Your task to perform on an android device: turn off smart reply in the gmail app Image 0: 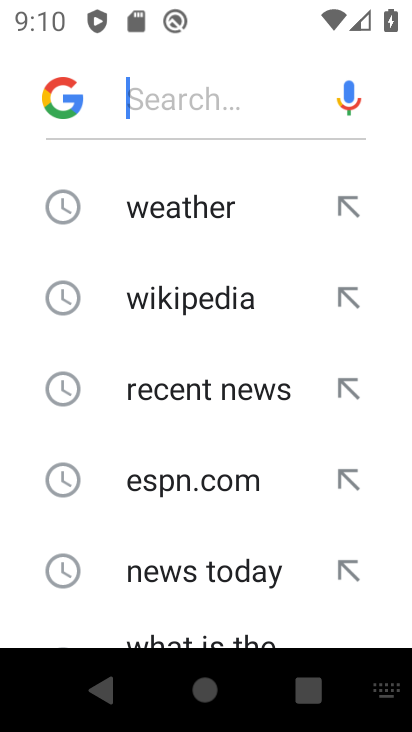
Step 0: press back button
Your task to perform on an android device: turn off smart reply in the gmail app Image 1: 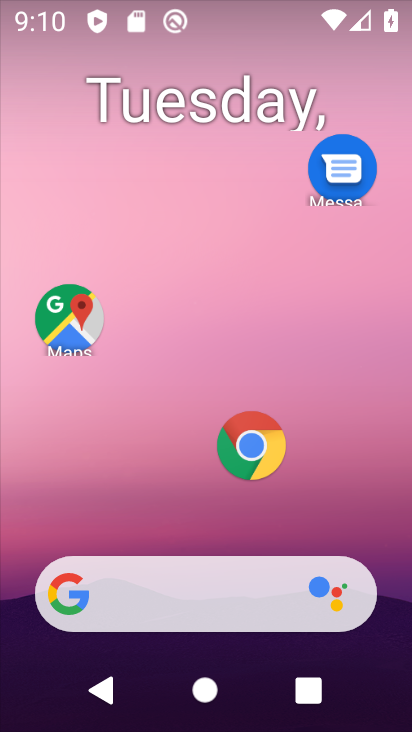
Step 1: drag from (108, 463) to (220, 250)
Your task to perform on an android device: turn off smart reply in the gmail app Image 2: 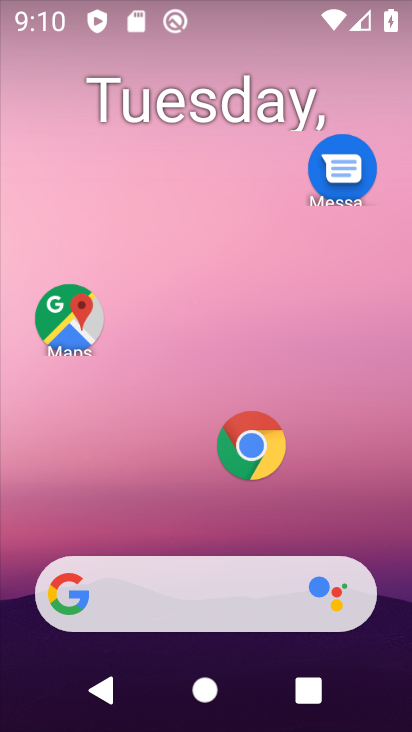
Step 2: drag from (31, 562) to (252, 180)
Your task to perform on an android device: turn off smart reply in the gmail app Image 3: 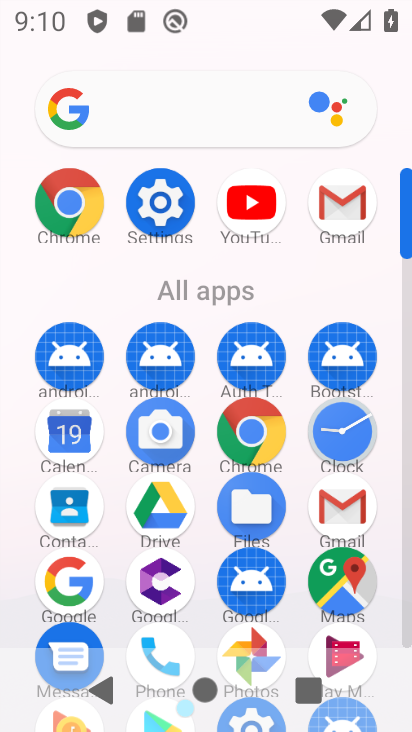
Step 3: click (334, 204)
Your task to perform on an android device: turn off smart reply in the gmail app Image 4: 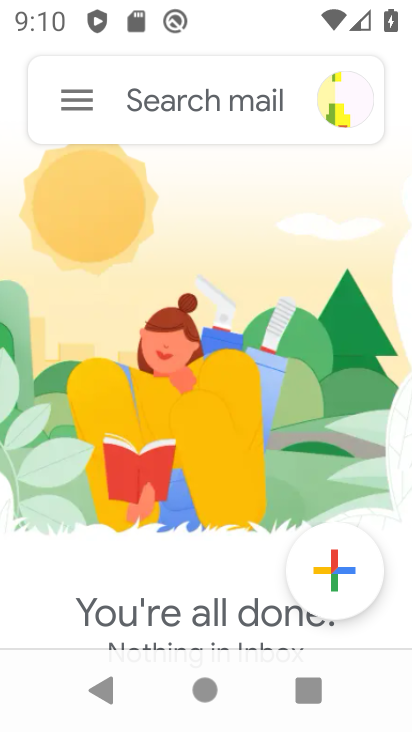
Step 4: click (65, 109)
Your task to perform on an android device: turn off smart reply in the gmail app Image 5: 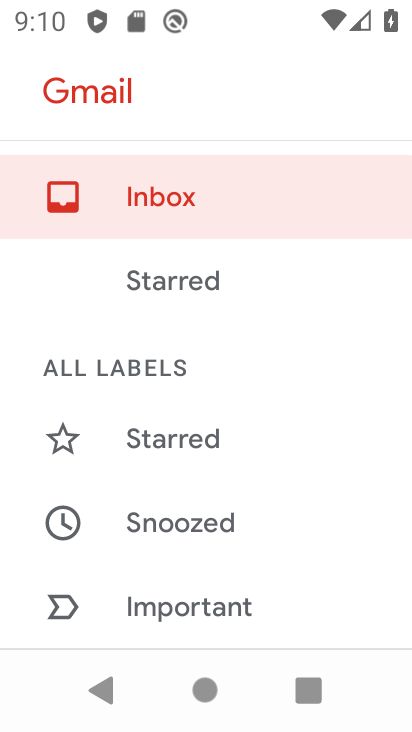
Step 5: drag from (126, 627) to (313, 274)
Your task to perform on an android device: turn off smart reply in the gmail app Image 6: 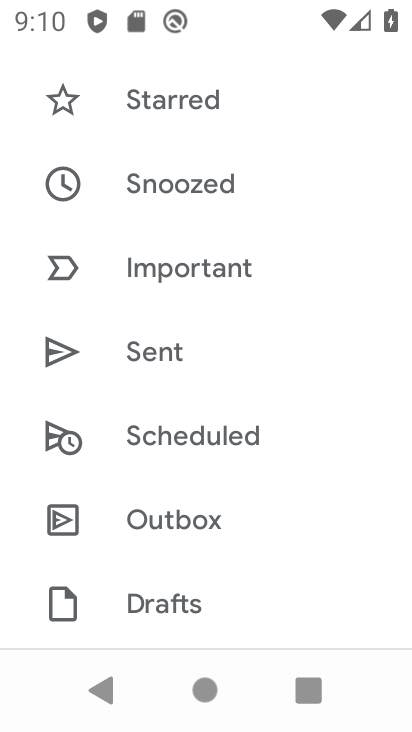
Step 6: drag from (162, 551) to (366, 224)
Your task to perform on an android device: turn off smart reply in the gmail app Image 7: 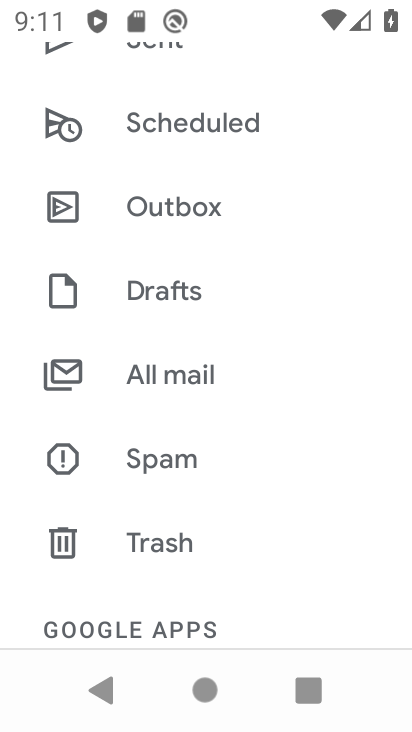
Step 7: drag from (39, 568) to (254, 335)
Your task to perform on an android device: turn off smart reply in the gmail app Image 8: 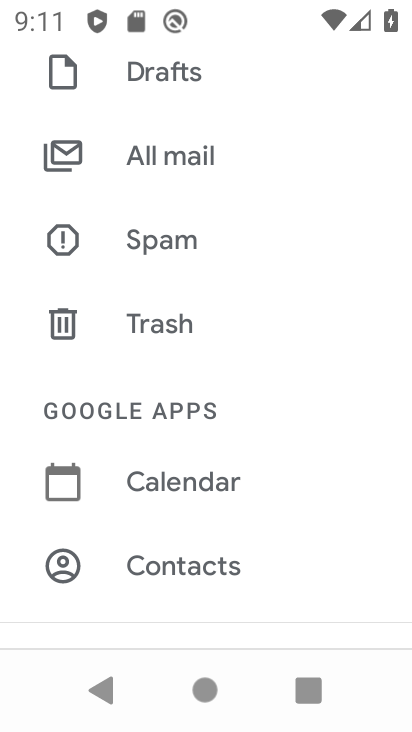
Step 8: drag from (80, 549) to (275, 380)
Your task to perform on an android device: turn off smart reply in the gmail app Image 9: 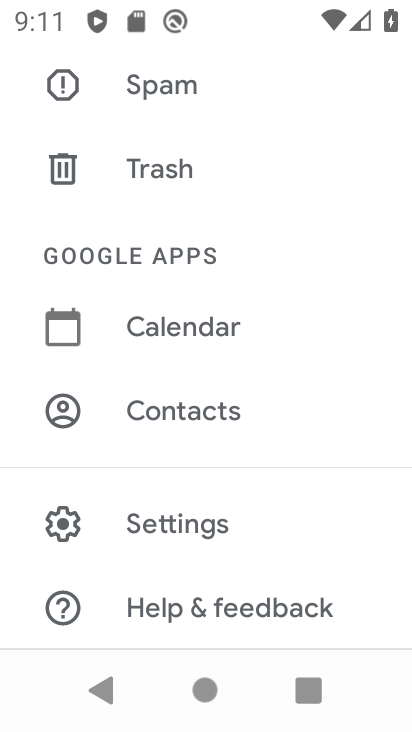
Step 9: click (268, 519)
Your task to perform on an android device: turn off smart reply in the gmail app Image 10: 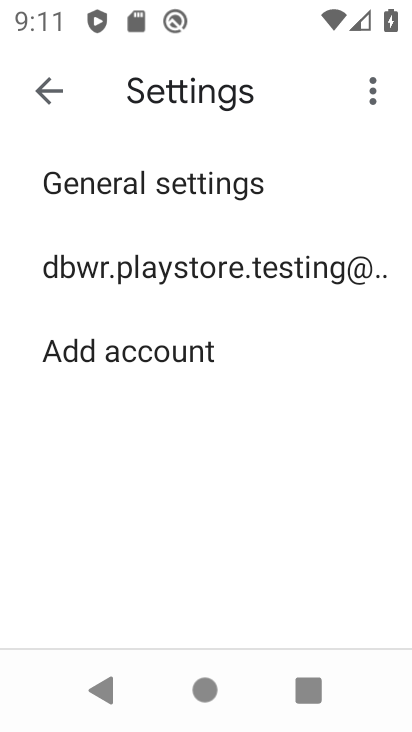
Step 10: click (233, 275)
Your task to perform on an android device: turn off smart reply in the gmail app Image 11: 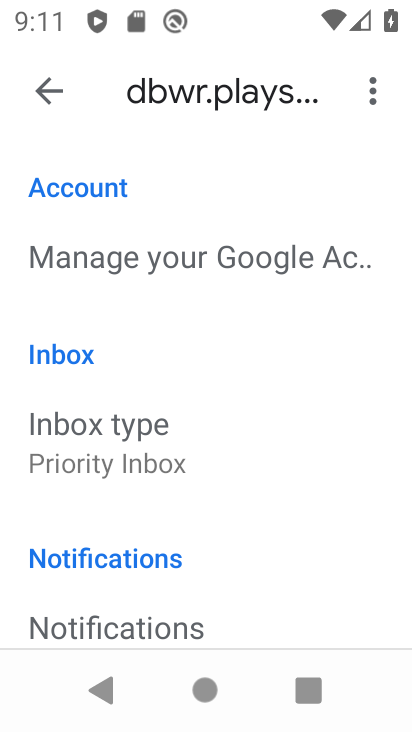
Step 11: drag from (69, 629) to (223, 319)
Your task to perform on an android device: turn off smart reply in the gmail app Image 12: 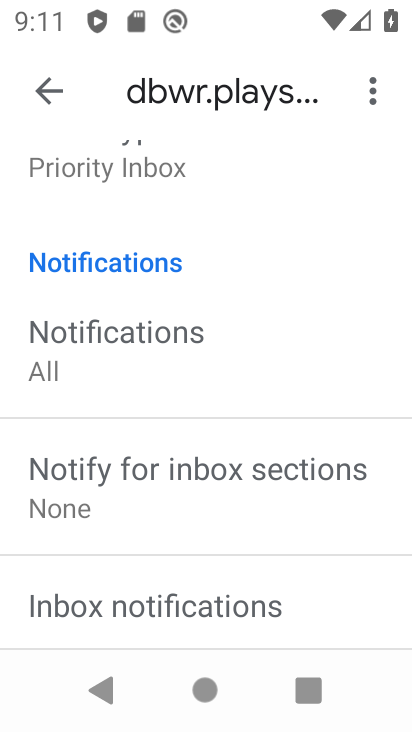
Step 12: drag from (212, 511) to (370, 121)
Your task to perform on an android device: turn off smart reply in the gmail app Image 13: 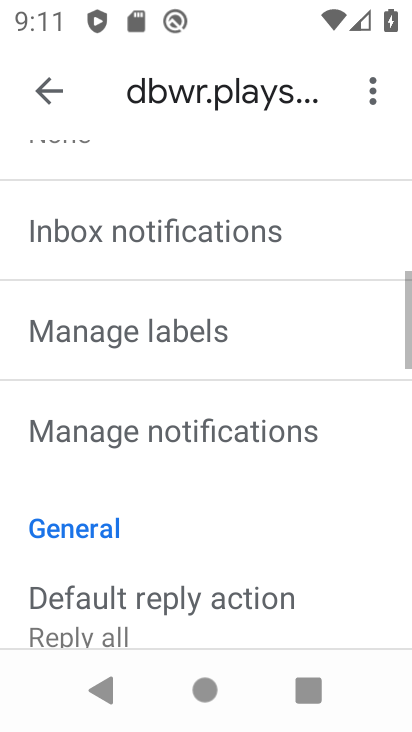
Step 13: drag from (125, 504) to (376, 102)
Your task to perform on an android device: turn off smart reply in the gmail app Image 14: 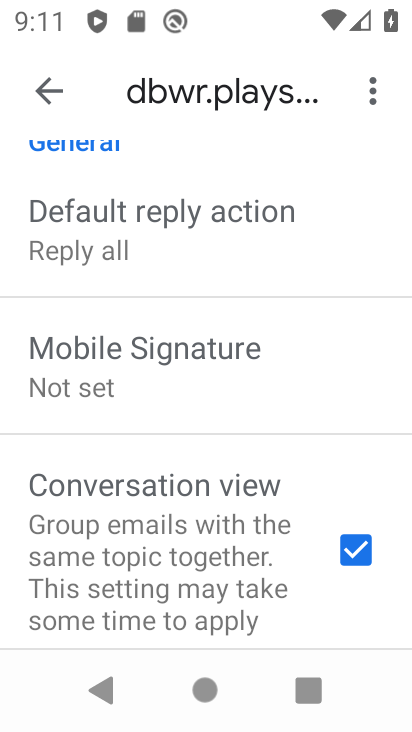
Step 14: drag from (72, 541) to (274, 182)
Your task to perform on an android device: turn off smart reply in the gmail app Image 15: 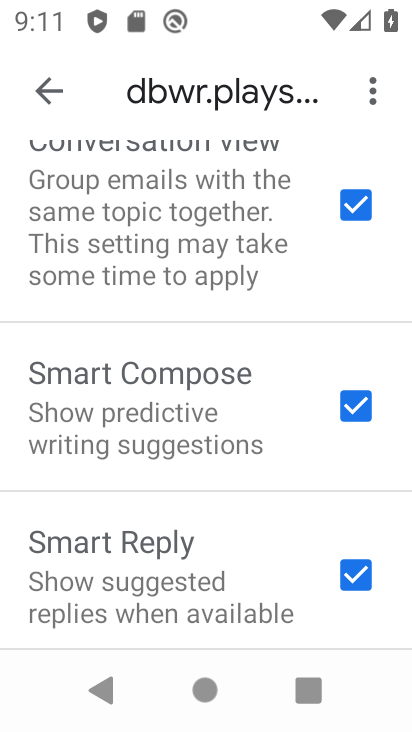
Step 15: click (357, 575)
Your task to perform on an android device: turn off smart reply in the gmail app Image 16: 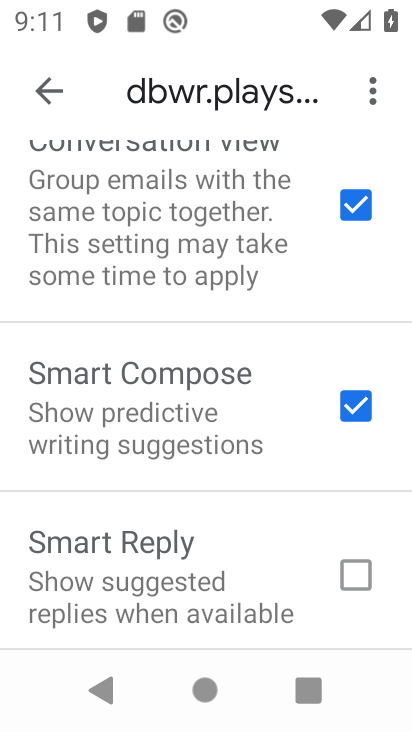
Step 16: task complete